Your task to perform on an android device: Go to eBay Image 0: 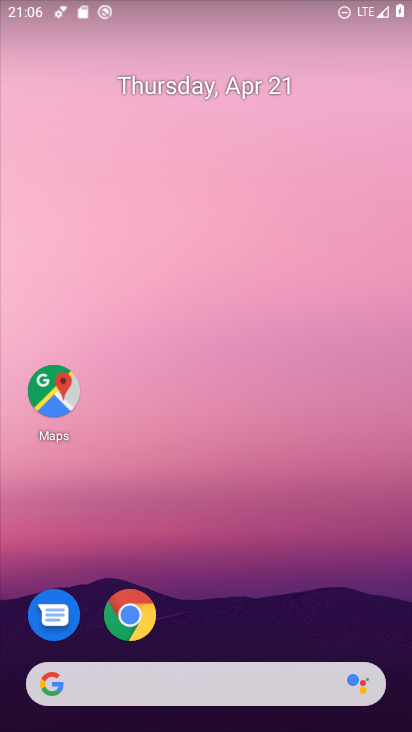
Step 0: drag from (191, 629) to (234, 149)
Your task to perform on an android device: Go to eBay Image 1: 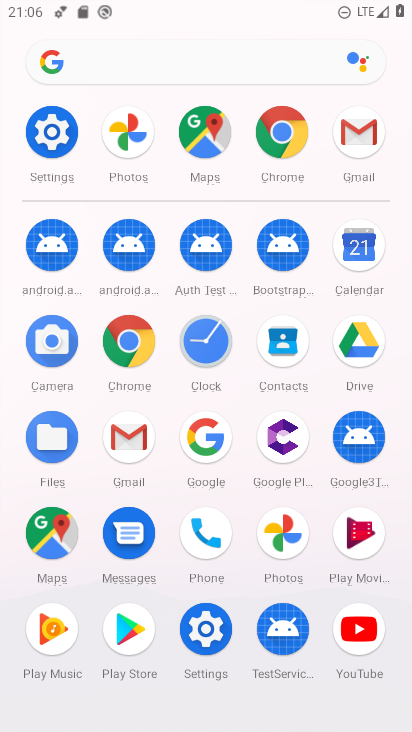
Step 1: drag from (228, 674) to (254, 240)
Your task to perform on an android device: Go to eBay Image 2: 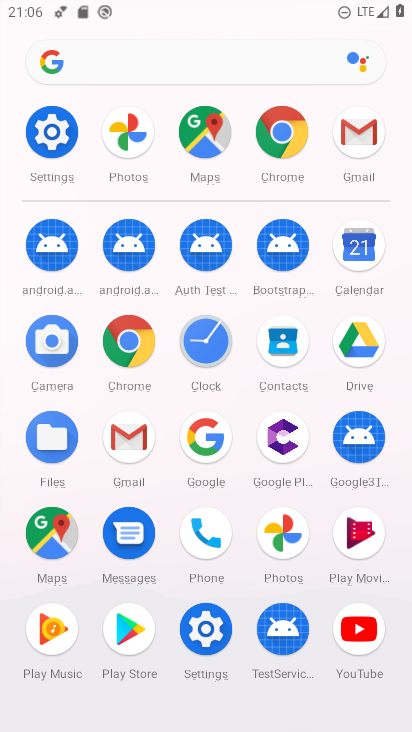
Step 2: click (130, 341)
Your task to perform on an android device: Go to eBay Image 3: 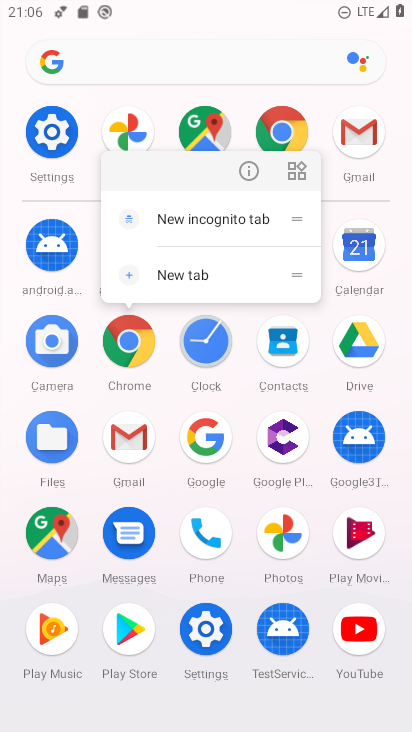
Step 3: click (255, 167)
Your task to perform on an android device: Go to eBay Image 4: 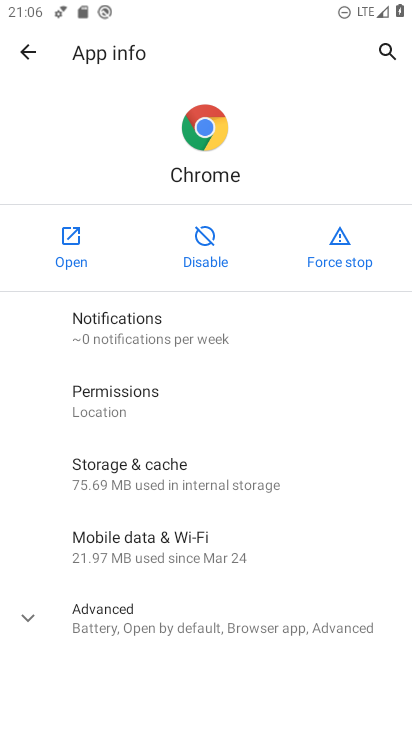
Step 4: click (79, 241)
Your task to perform on an android device: Go to eBay Image 5: 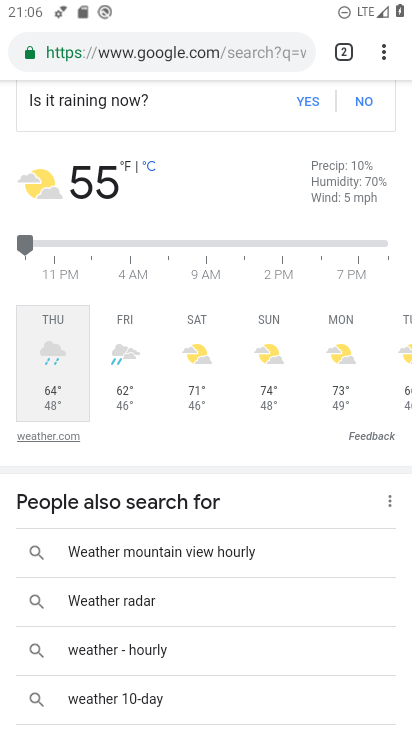
Step 5: drag from (227, 92) to (290, 651)
Your task to perform on an android device: Go to eBay Image 6: 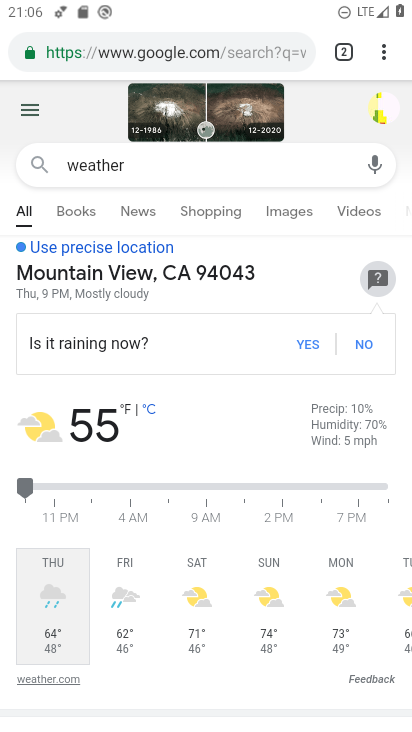
Step 6: click (144, 53)
Your task to perform on an android device: Go to eBay Image 7: 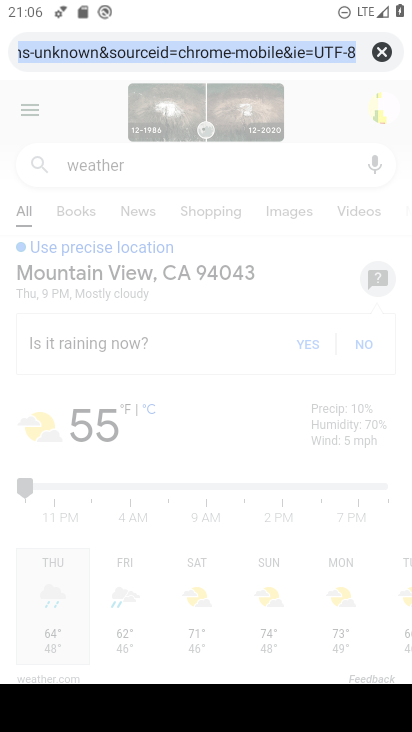
Step 7: click (384, 48)
Your task to perform on an android device: Go to eBay Image 8: 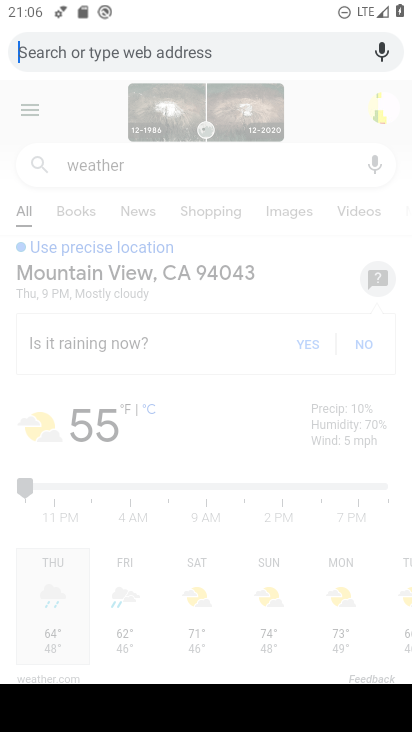
Step 8: click (181, 58)
Your task to perform on an android device: Go to eBay Image 9: 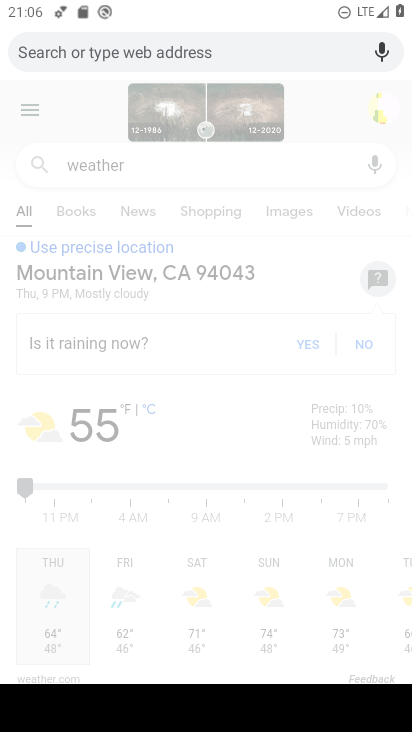
Step 9: type "ebay"
Your task to perform on an android device: Go to eBay Image 10: 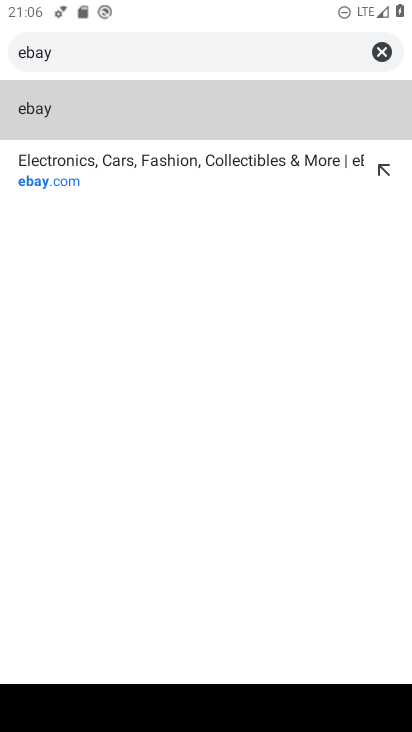
Step 10: click (49, 120)
Your task to perform on an android device: Go to eBay Image 11: 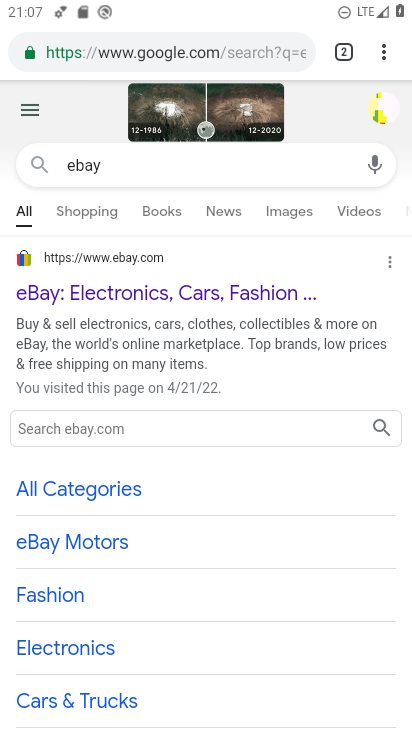
Step 11: click (177, 288)
Your task to perform on an android device: Go to eBay Image 12: 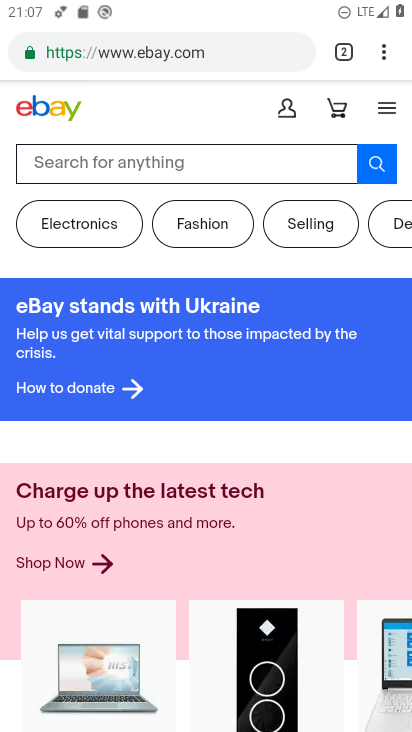
Step 12: task complete